Your task to perform on an android device: turn off sleep mode Image 0: 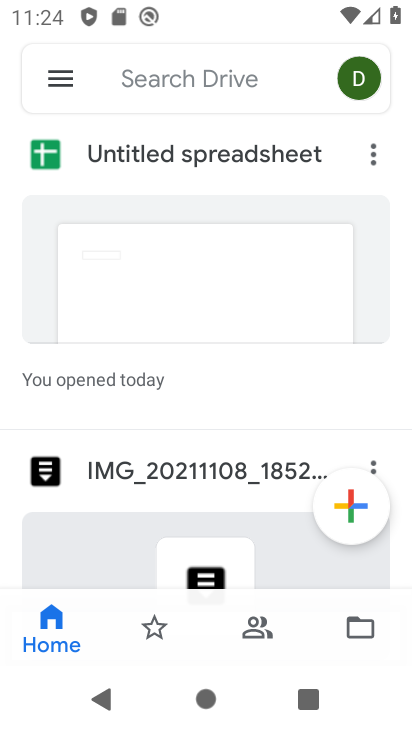
Step 0: drag from (351, 12) to (273, 547)
Your task to perform on an android device: turn off sleep mode Image 1: 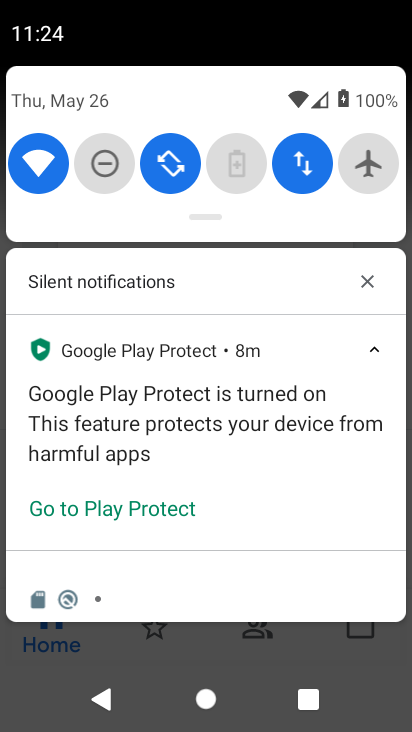
Step 1: drag from (194, 218) to (165, 443)
Your task to perform on an android device: turn off sleep mode Image 2: 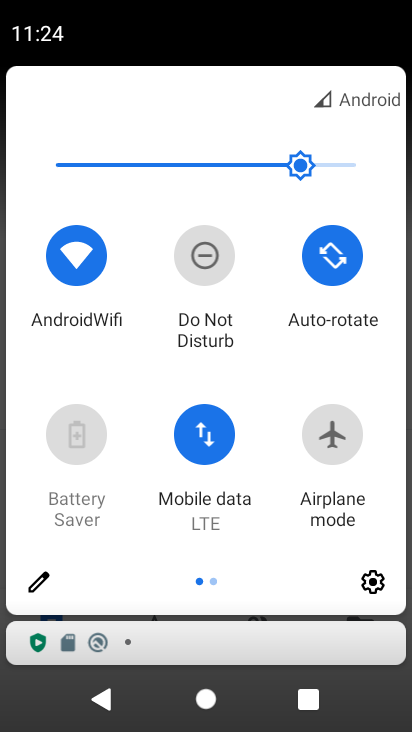
Step 2: drag from (291, 529) to (35, 416)
Your task to perform on an android device: turn off sleep mode Image 3: 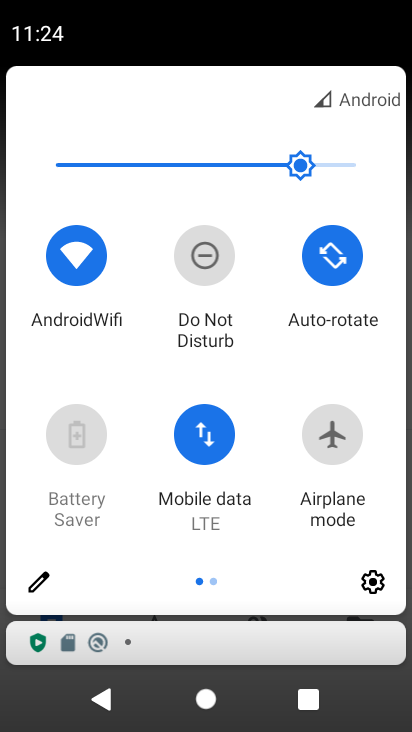
Step 3: click (42, 575)
Your task to perform on an android device: turn off sleep mode Image 4: 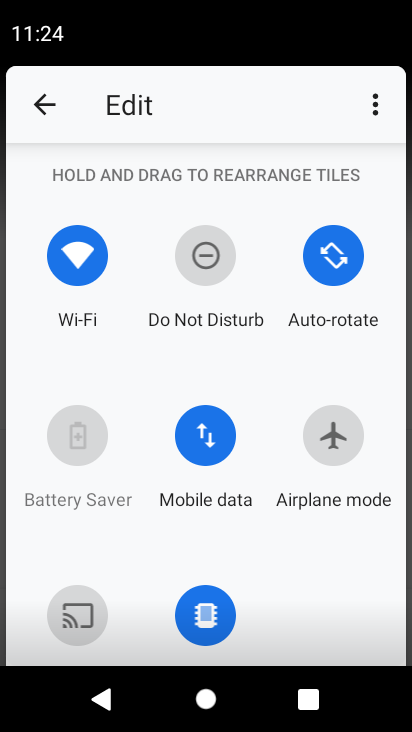
Step 4: task complete